Your task to perform on an android device: install app "LinkedIn" Image 0: 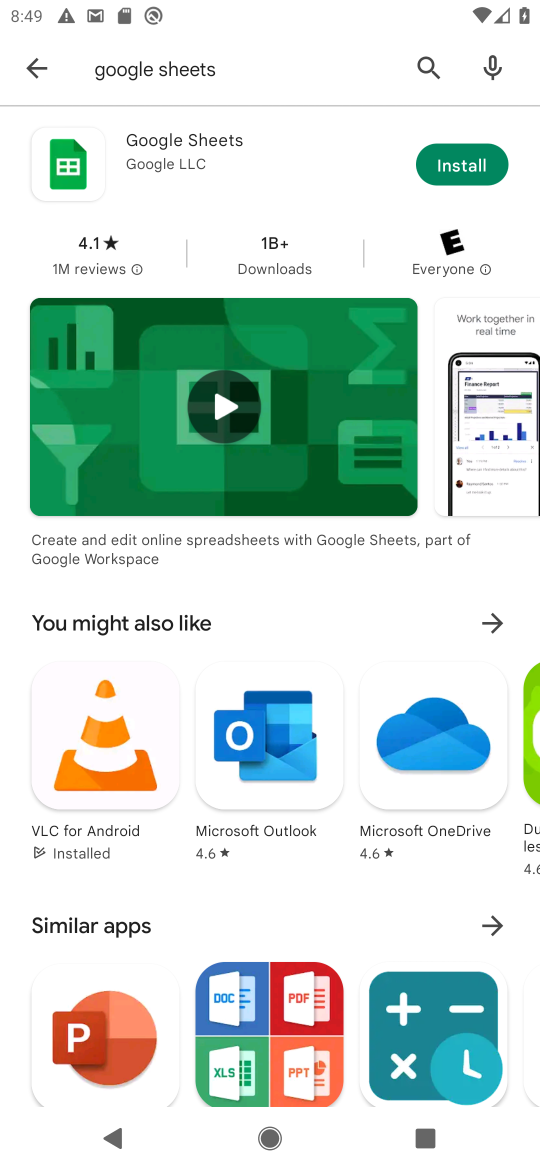
Step 0: press home button
Your task to perform on an android device: install app "LinkedIn" Image 1: 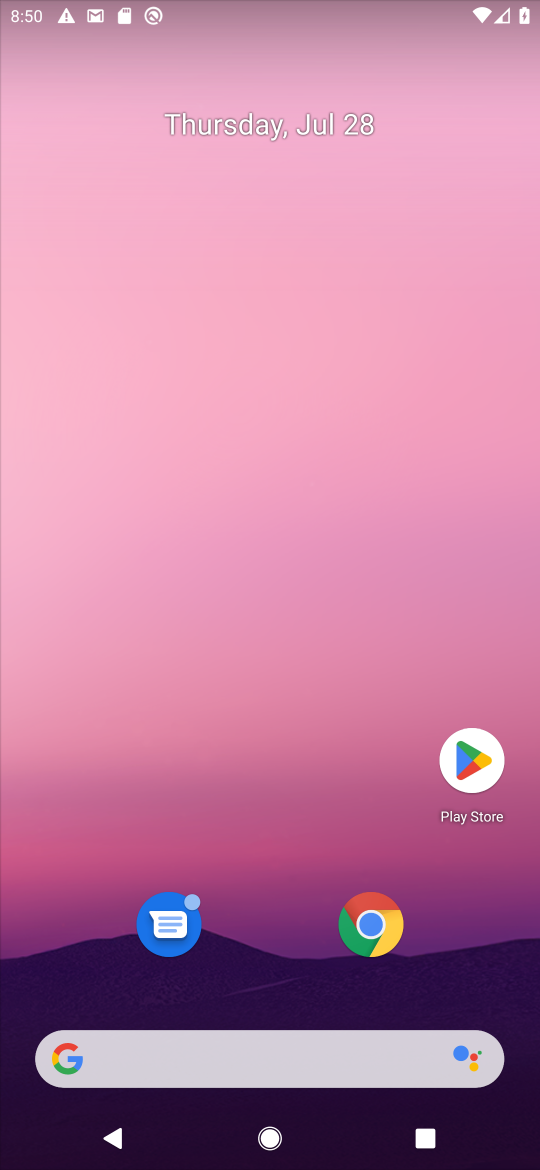
Step 1: click (470, 750)
Your task to perform on an android device: install app "LinkedIn" Image 2: 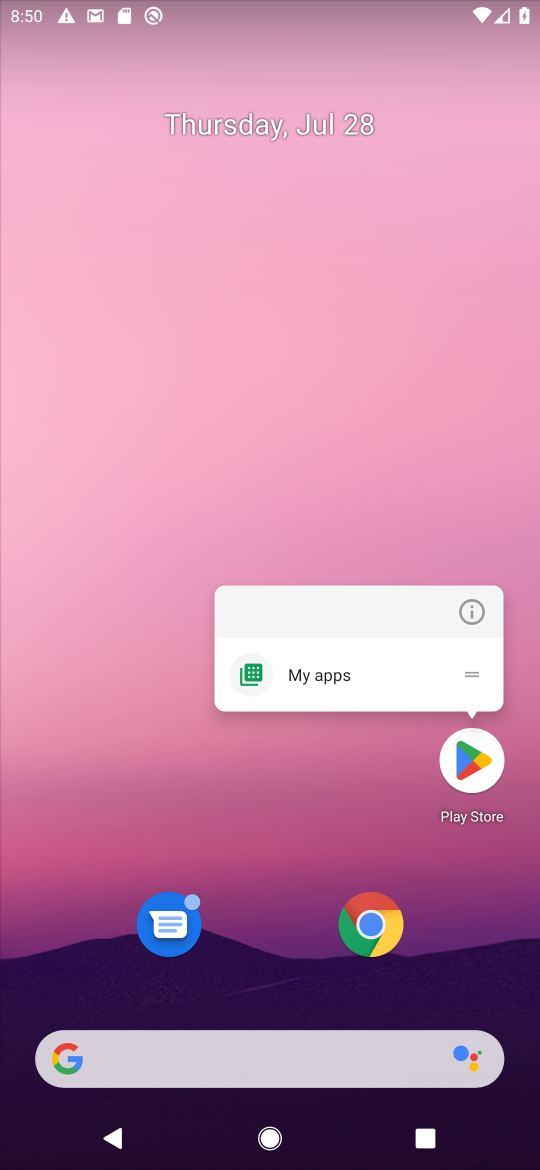
Step 2: click (474, 761)
Your task to perform on an android device: install app "LinkedIn" Image 3: 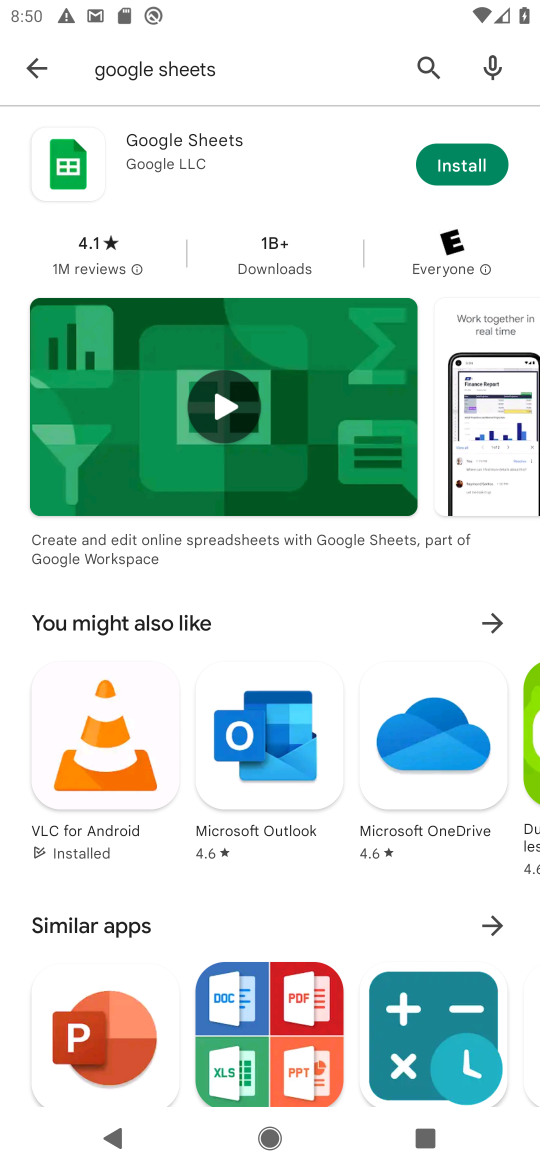
Step 3: click (424, 60)
Your task to perform on an android device: install app "LinkedIn" Image 4: 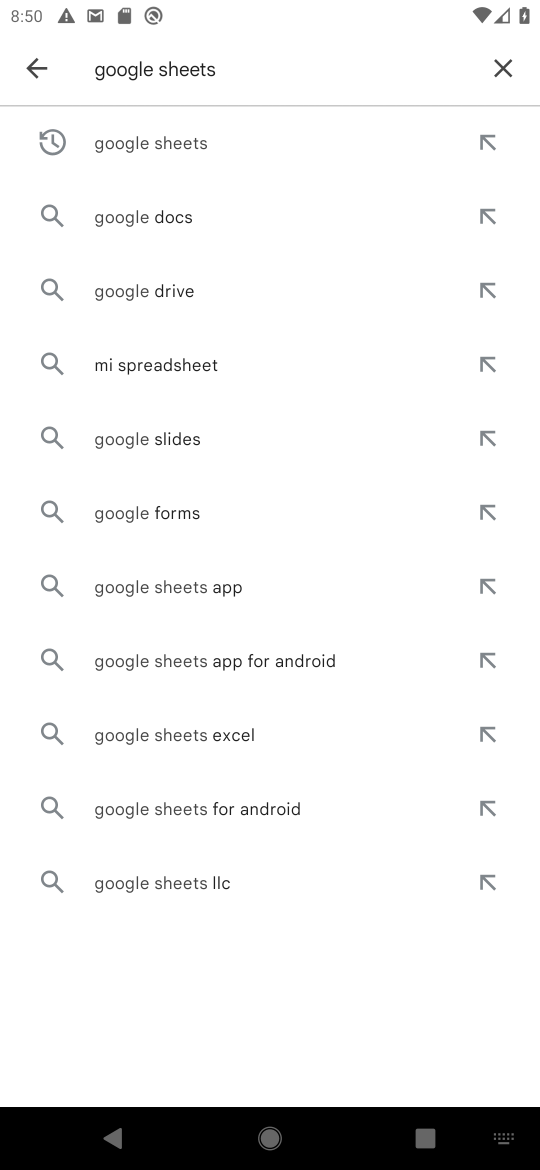
Step 4: click (507, 63)
Your task to perform on an android device: install app "LinkedIn" Image 5: 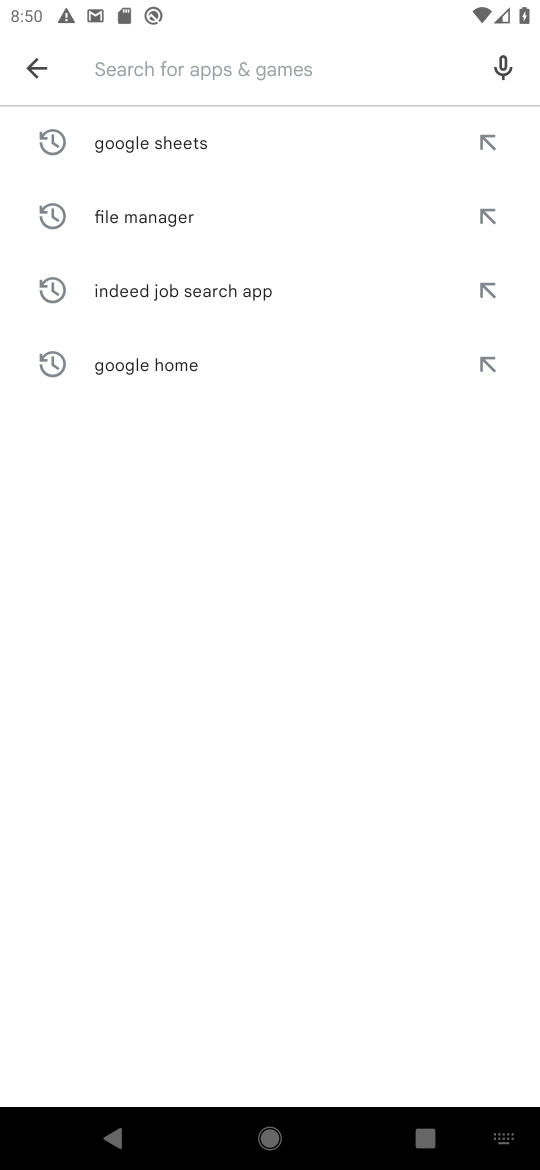
Step 5: type "LinkedIn"
Your task to perform on an android device: install app "LinkedIn" Image 6: 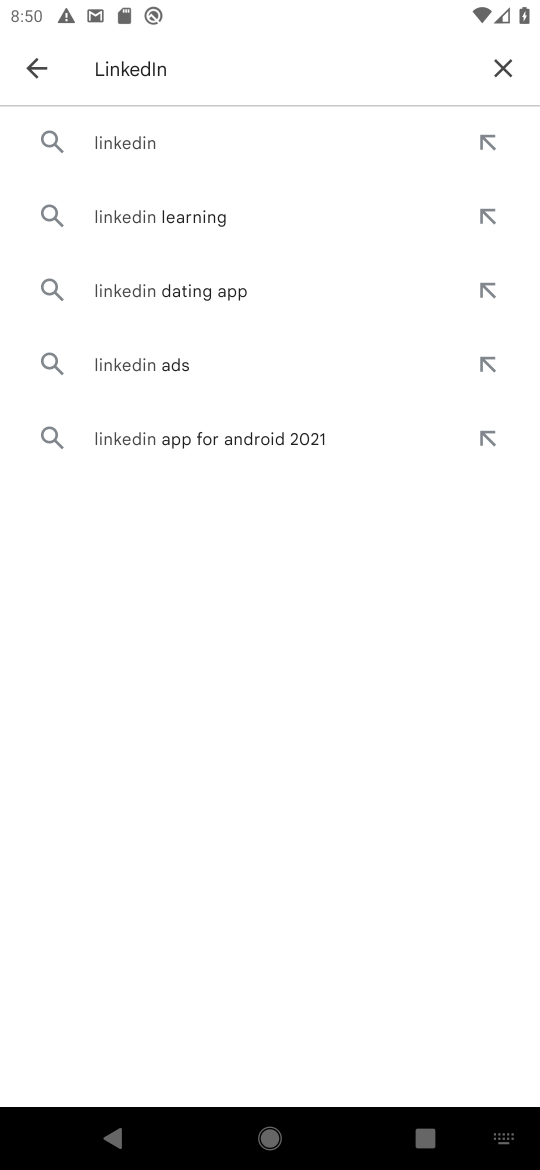
Step 6: click (152, 138)
Your task to perform on an android device: install app "LinkedIn" Image 7: 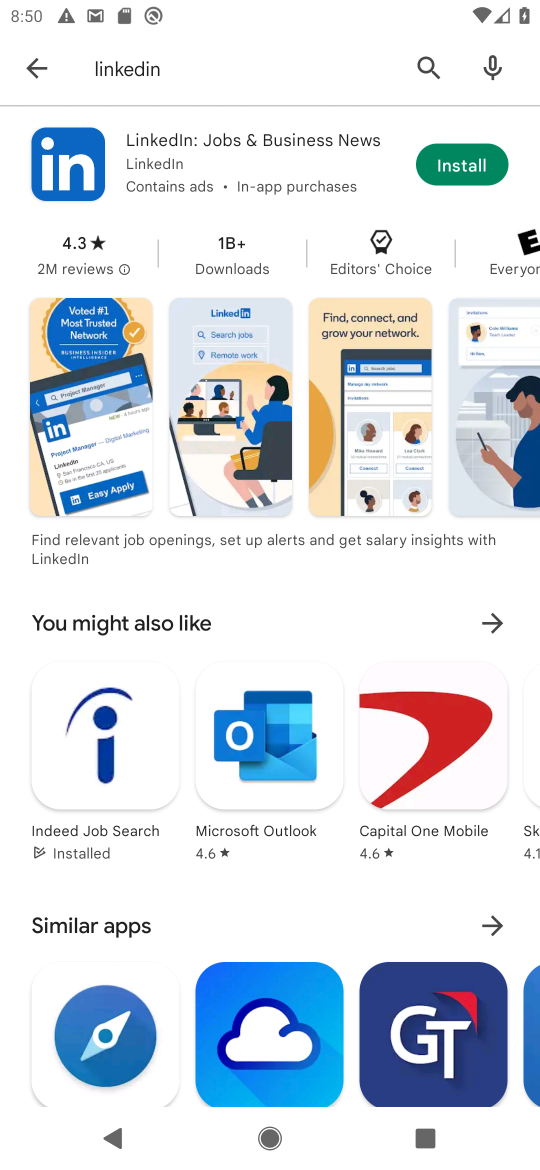
Step 7: click (471, 161)
Your task to perform on an android device: install app "LinkedIn" Image 8: 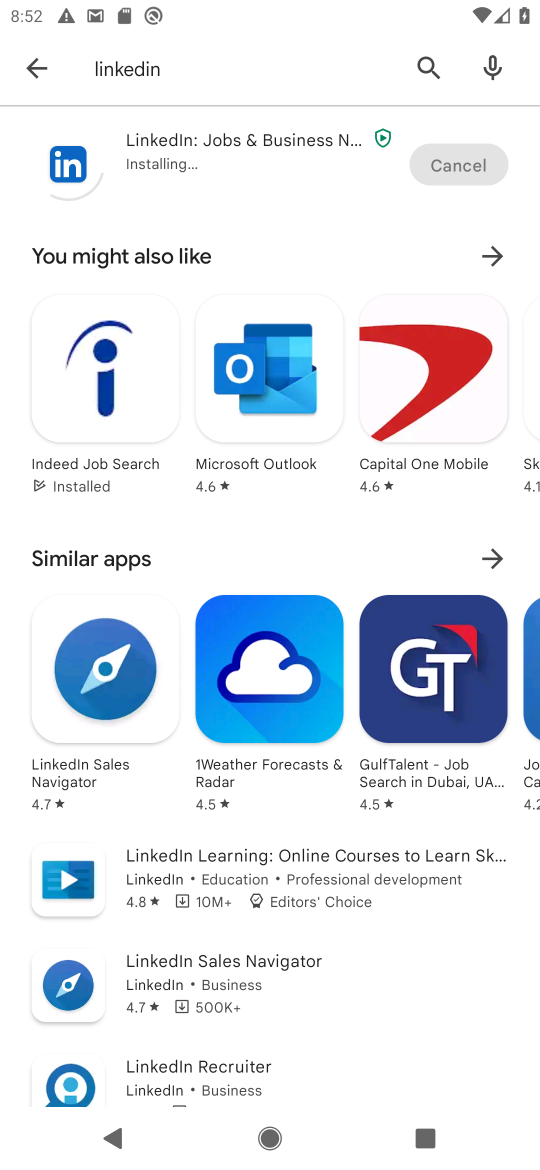
Step 8: task complete